Your task to perform on an android device: What's the weather today? Image 0: 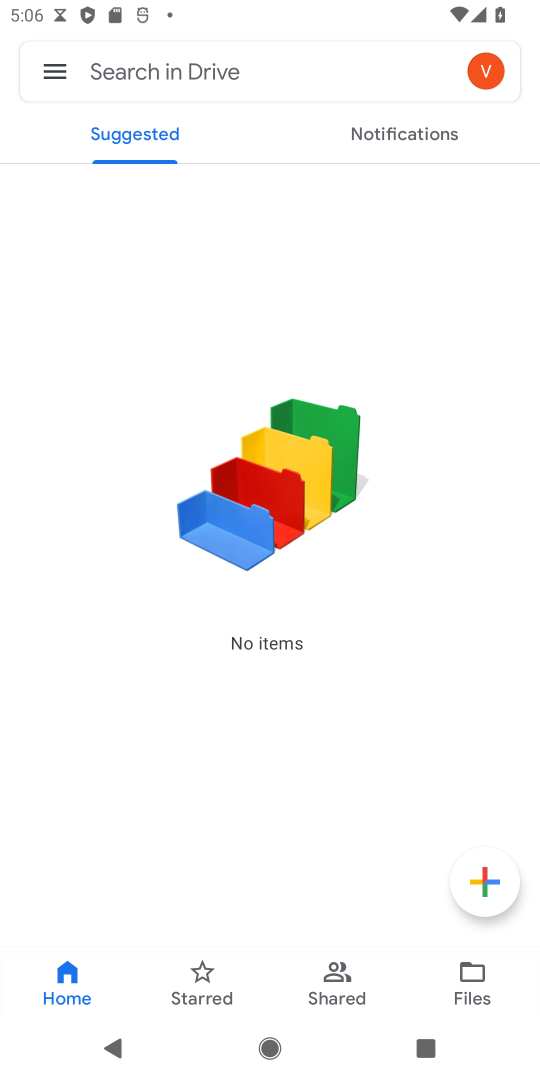
Step 0: press home button
Your task to perform on an android device: What's the weather today? Image 1: 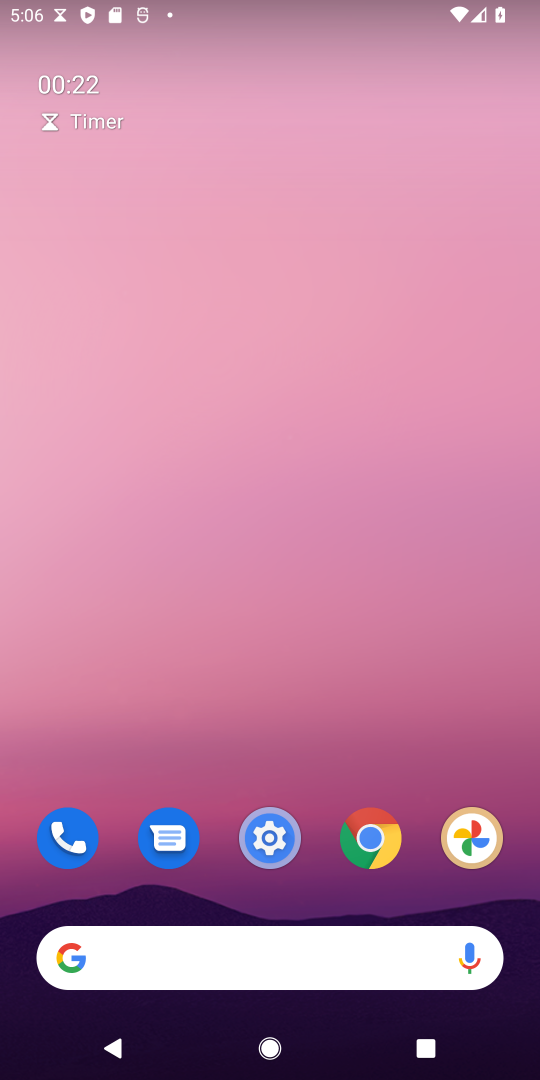
Step 1: click (343, 851)
Your task to perform on an android device: What's the weather today? Image 2: 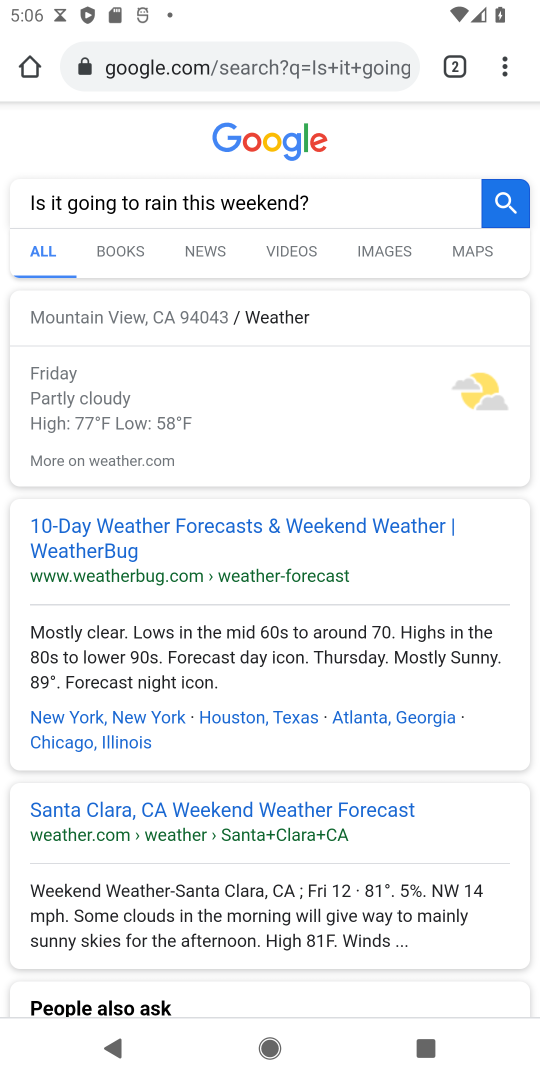
Step 2: click (284, 88)
Your task to perform on an android device: What's the weather today? Image 3: 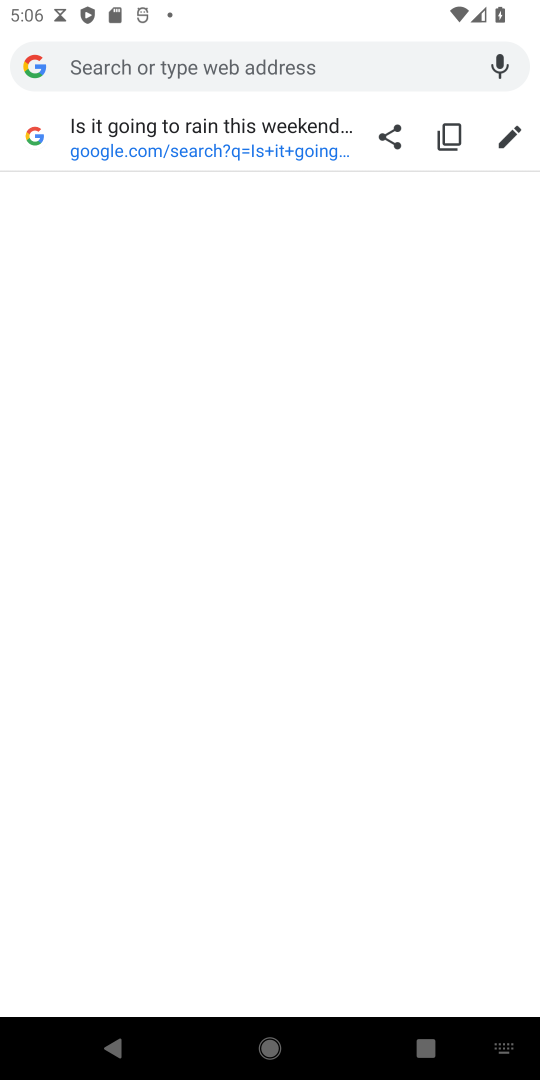
Step 3: type "What's the weather today?"
Your task to perform on an android device: What's the weather today? Image 4: 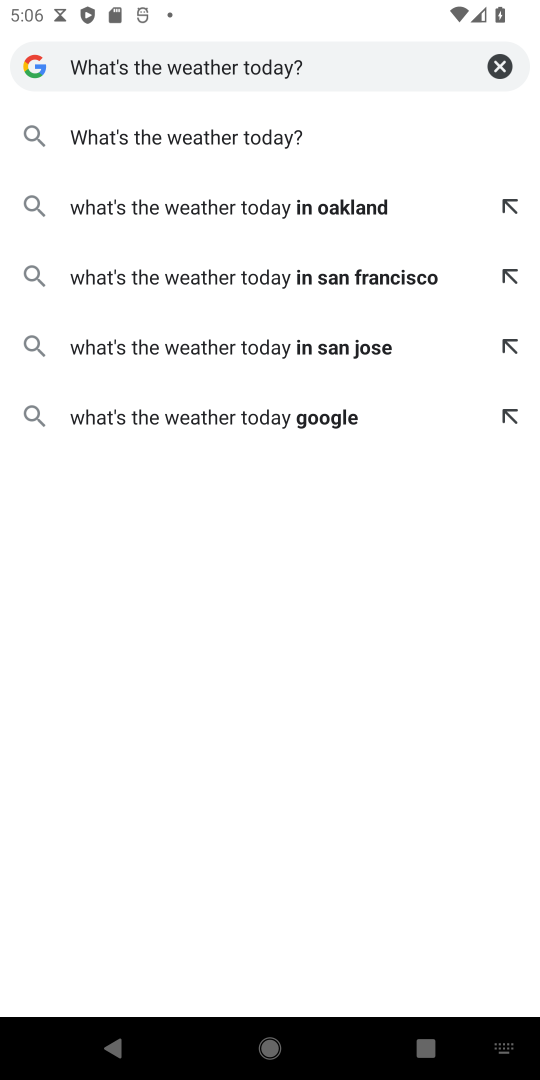
Step 4: click (174, 126)
Your task to perform on an android device: What's the weather today? Image 5: 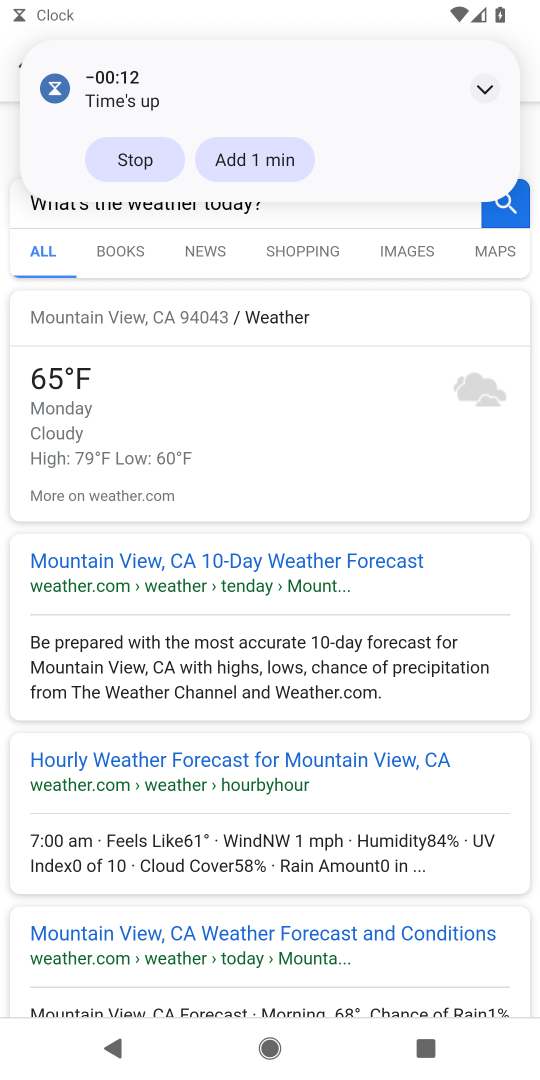
Step 5: task complete